Your task to perform on an android device: open chrome privacy settings Image 0: 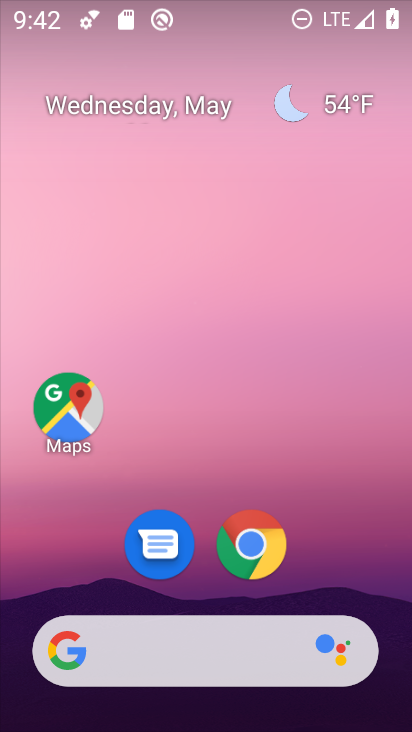
Step 0: click (241, 558)
Your task to perform on an android device: open chrome privacy settings Image 1: 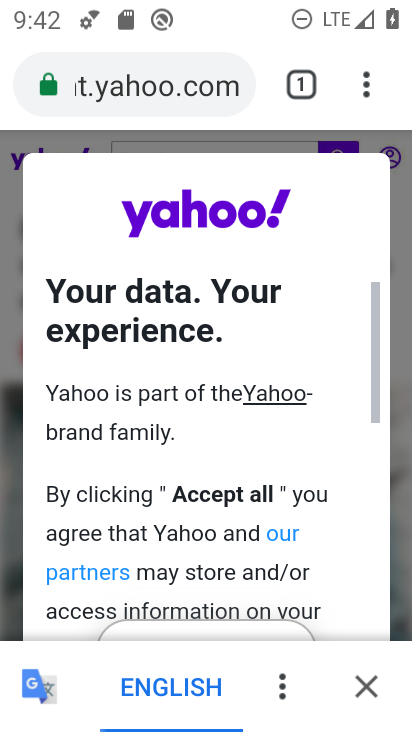
Step 1: click (396, 80)
Your task to perform on an android device: open chrome privacy settings Image 2: 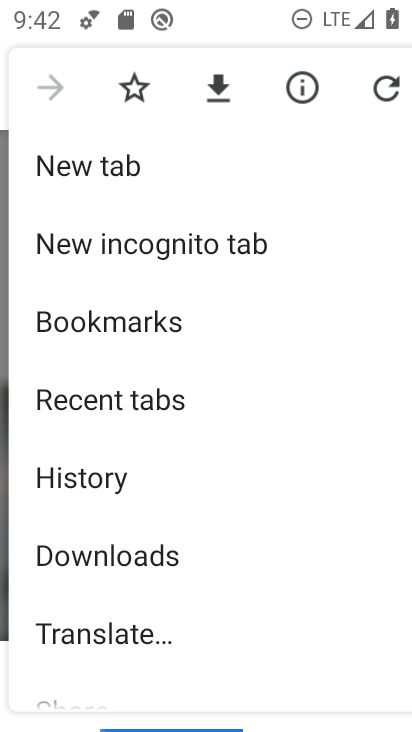
Step 2: drag from (105, 534) to (173, 216)
Your task to perform on an android device: open chrome privacy settings Image 3: 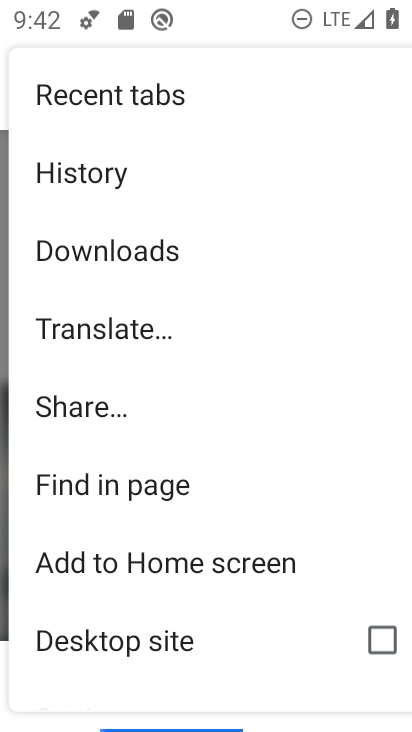
Step 3: drag from (225, 543) to (264, 56)
Your task to perform on an android device: open chrome privacy settings Image 4: 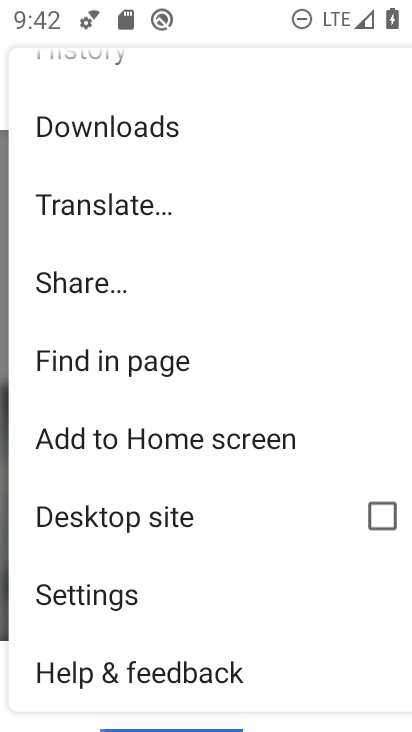
Step 4: click (106, 571)
Your task to perform on an android device: open chrome privacy settings Image 5: 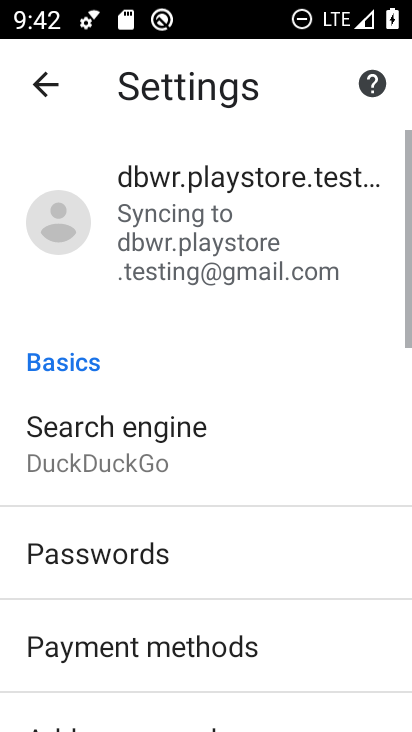
Step 5: drag from (106, 571) to (210, 202)
Your task to perform on an android device: open chrome privacy settings Image 6: 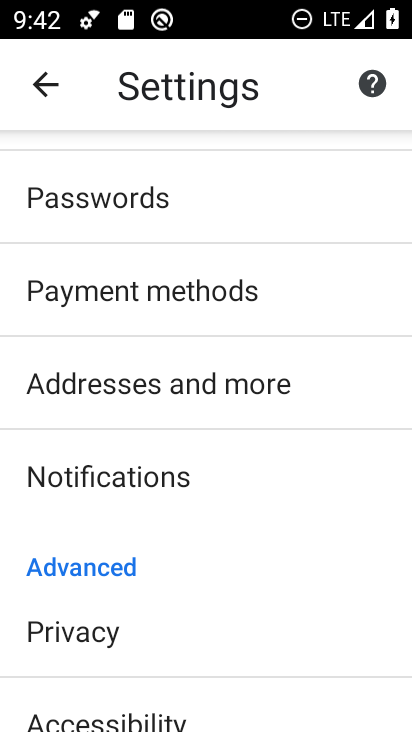
Step 6: click (105, 610)
Your task to perform on an android device: open chrome privacy settings Image 7: 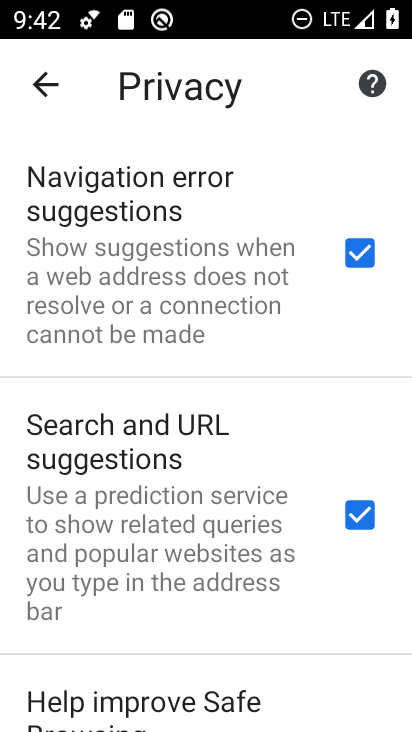
Step 7: task complete